Your task to perform on an android device: set default search engine in the chrome app Image 0: 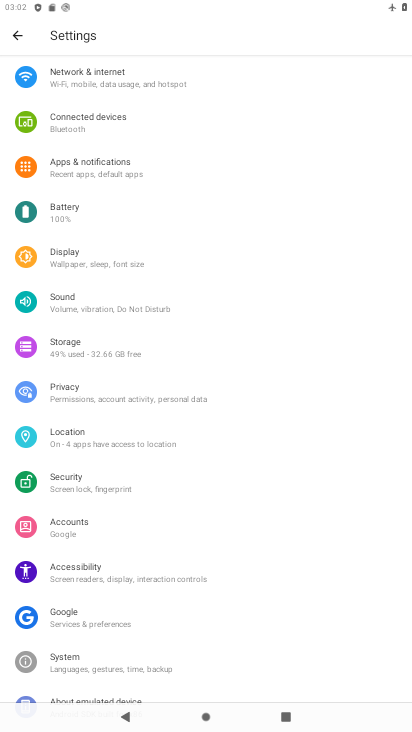
Step 0: press home button
Your task to perform on an android device: set default search engine in the chrome app Image 1: 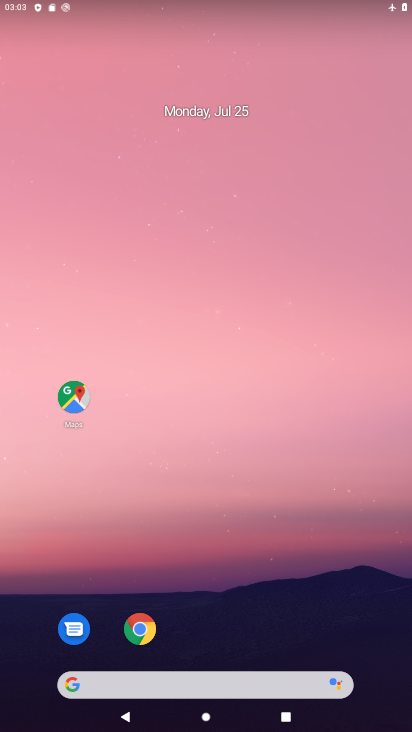
Step 1: click (138, 635)
Your task to perform on an android device: set default search engine in the chrome app Image 2: 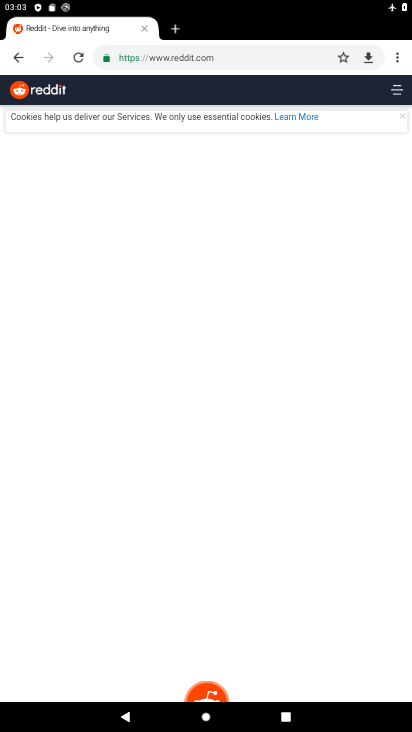
Step 2: click (394, 59)
Your task to perform on an android device: set default search engine in the chrome app Image 3: 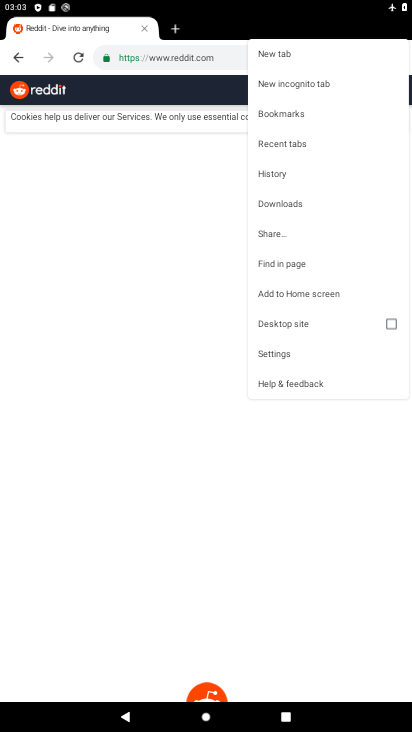
Step 3: click (255, 354)
Your task to perform on an android device: set default search engine in the chrome app Image 4: 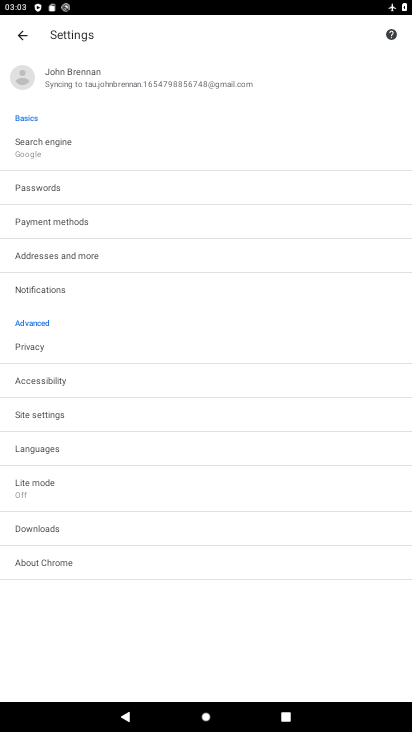
Step 4: click (29, 152)
Your task to perform on an android device: set default search engine in the chrome app Image 5: 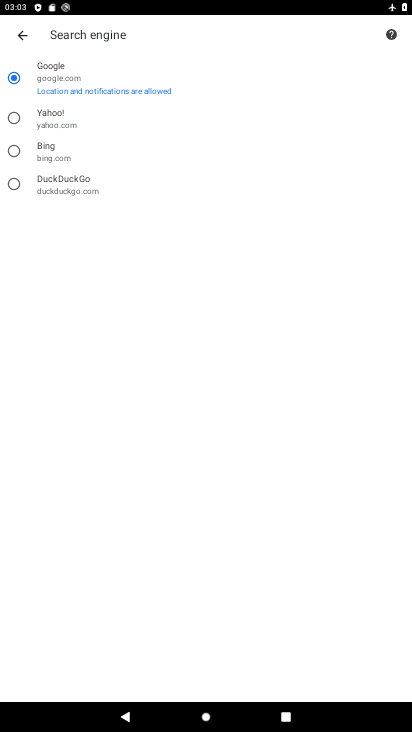
Step 5: click (16, 115)
Your task to perform on an android device: set default search engine in the chrome app Image 6: 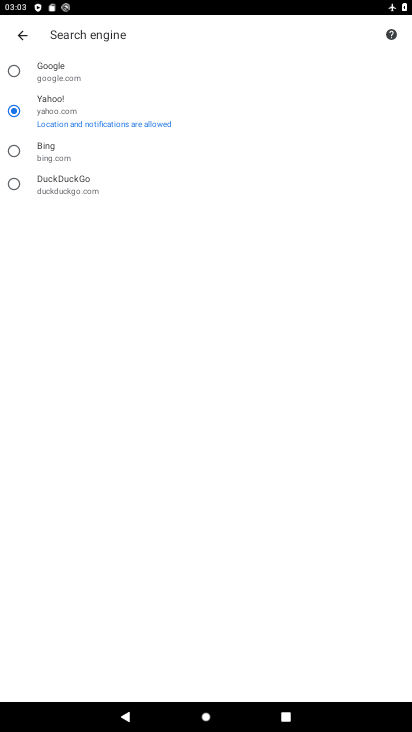
Step 6: task complete